Your task to perform on an android device: see tabs open on other devices in the chrome app Image 0: 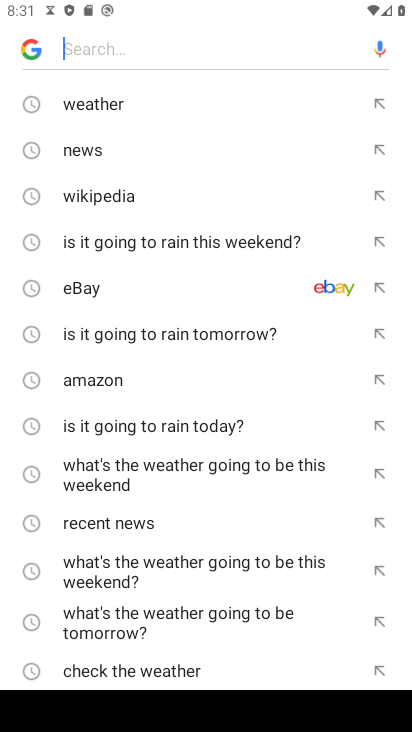
Step 0: press home button
Your task to perform on an android device: see tabs open on other devices in the chrome app Image 1: 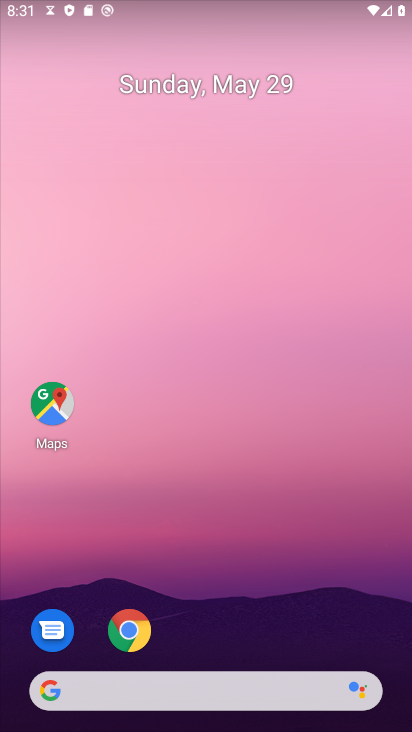
Step 1: click (121, 626)
Your task to perform on an android device: see tabs open on other devices in the chrome app Image 2: 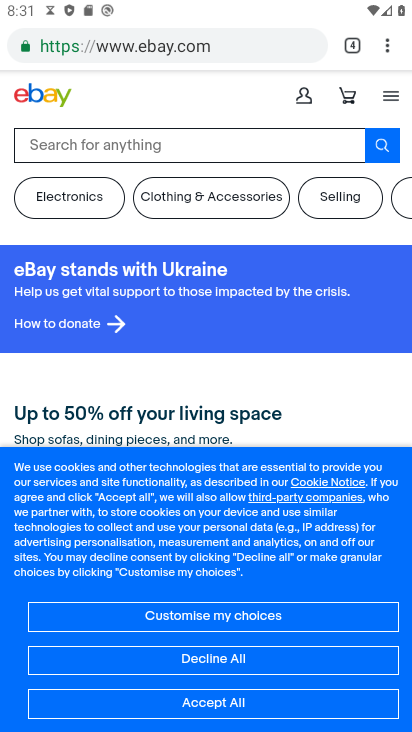
Step 2: click (392, 51)
Your task to perform on an android device: see tabs open on other devices in the chrome app Image 3: 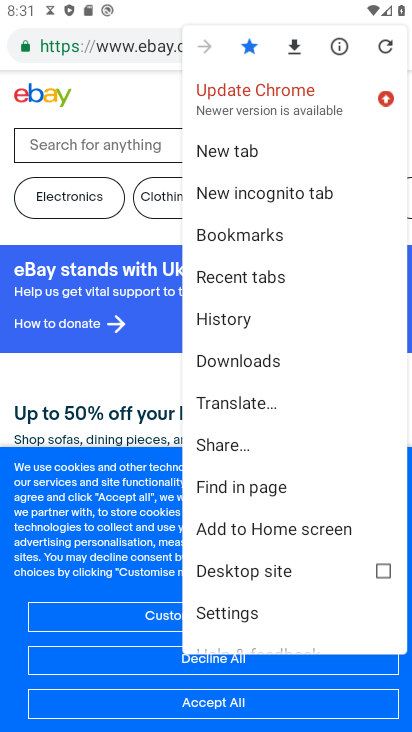
Step 3: click (228, 275)
Your task to perform on an android device: see tabs open on other devices in the chrome app Image 4: 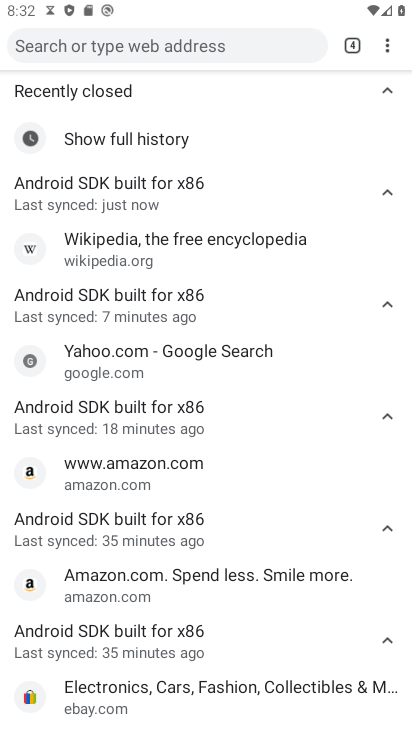
Step 4: task complete